Your task to perform on an android device: toggle translation in the chrome app Image 0: 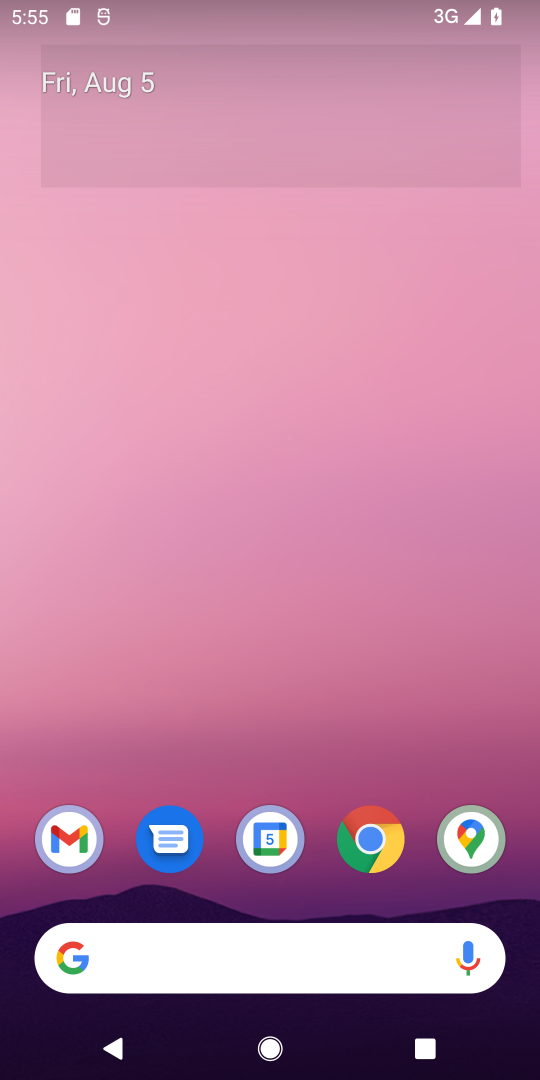
Step 0: click (365, 853)
Your task to perform on an android device: toggle translation in the chrome app Image 1: 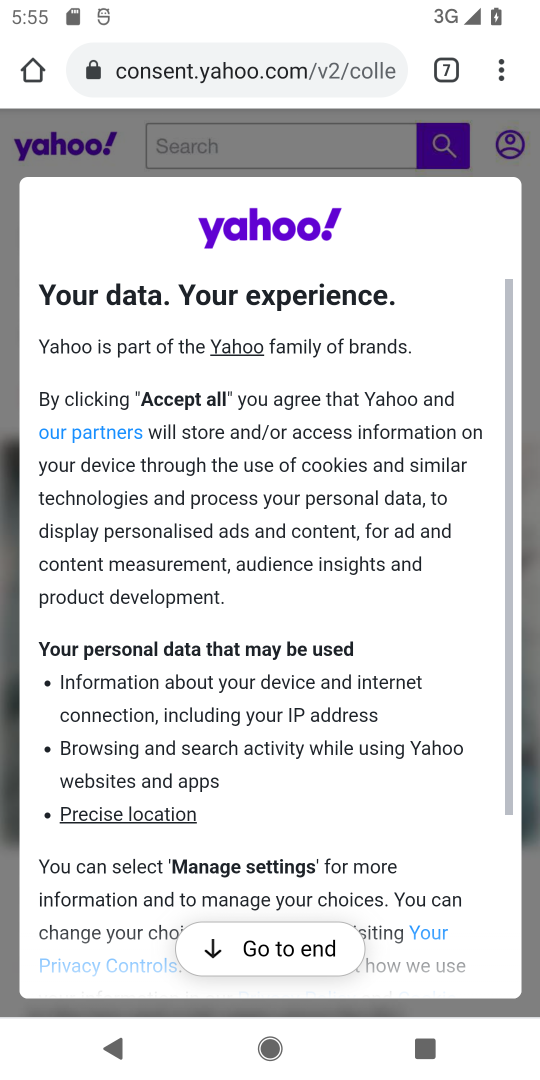
Step 1: drag from (502, 80) to (300, 830)
Your task to perform on an android device: toggle translation in the chrome app Image 2: 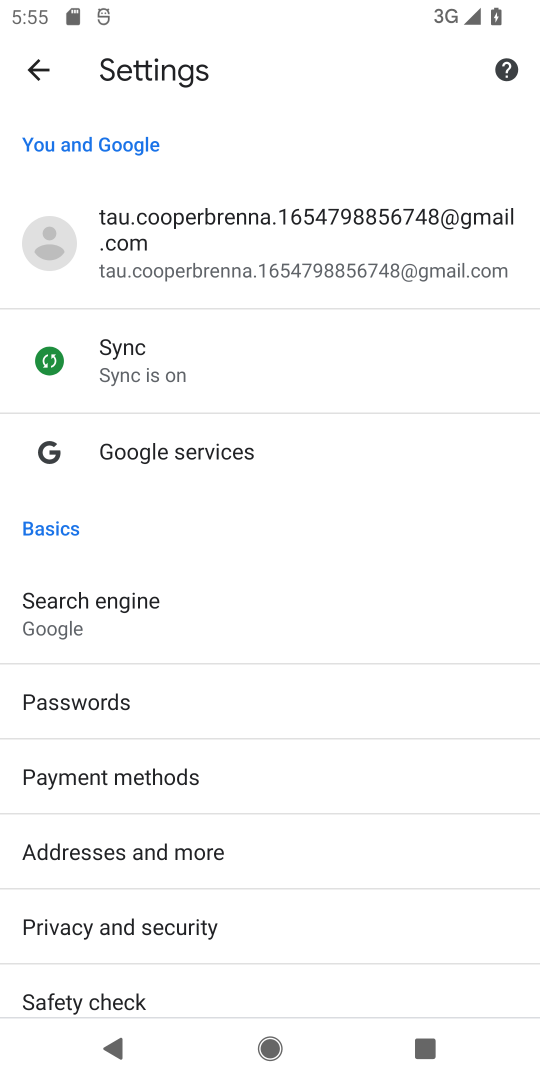
Step 2: drag from (260, 882) to (301, 316)
Your task to perform on an android device: toggle translation in the chrome app Image 3: 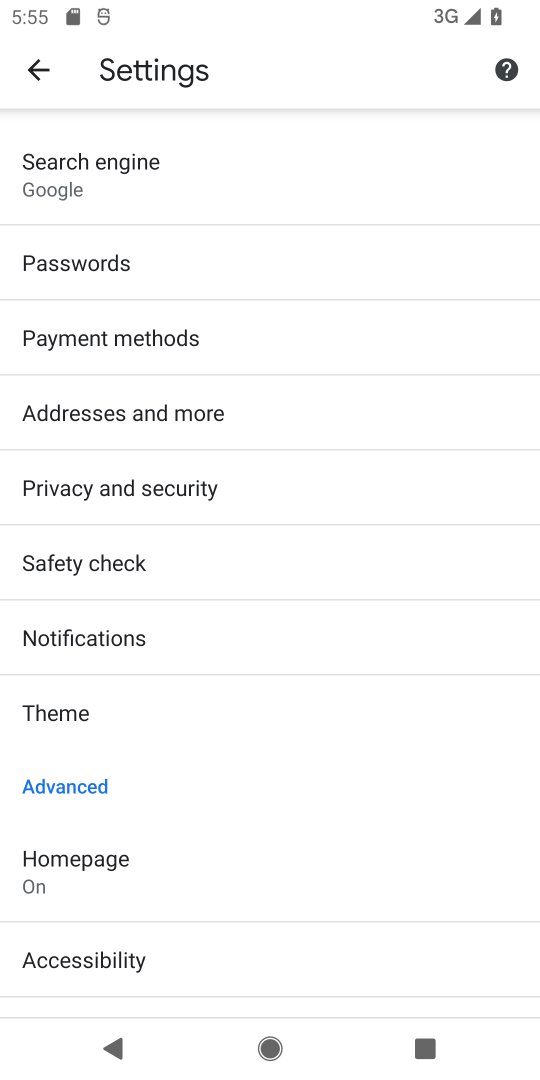
Step 3: drag from (191, 926) to (220, 482)
Your task to perform on an android device: toggle translation in the chrome app Image 4: 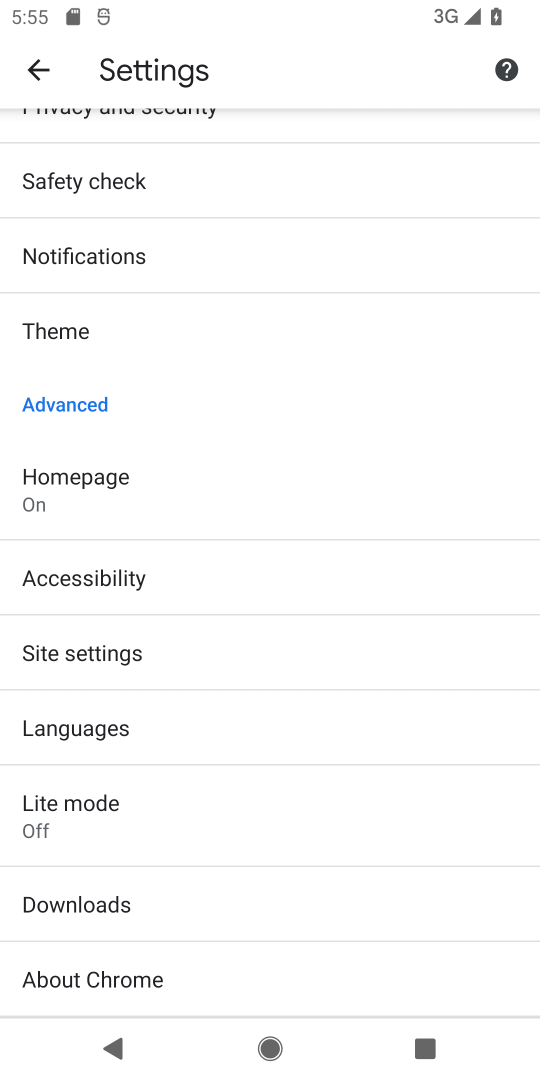
Step 4: click (142, 708)
Your task to perform on an android device: toggle translation in the chrome app Image 5: 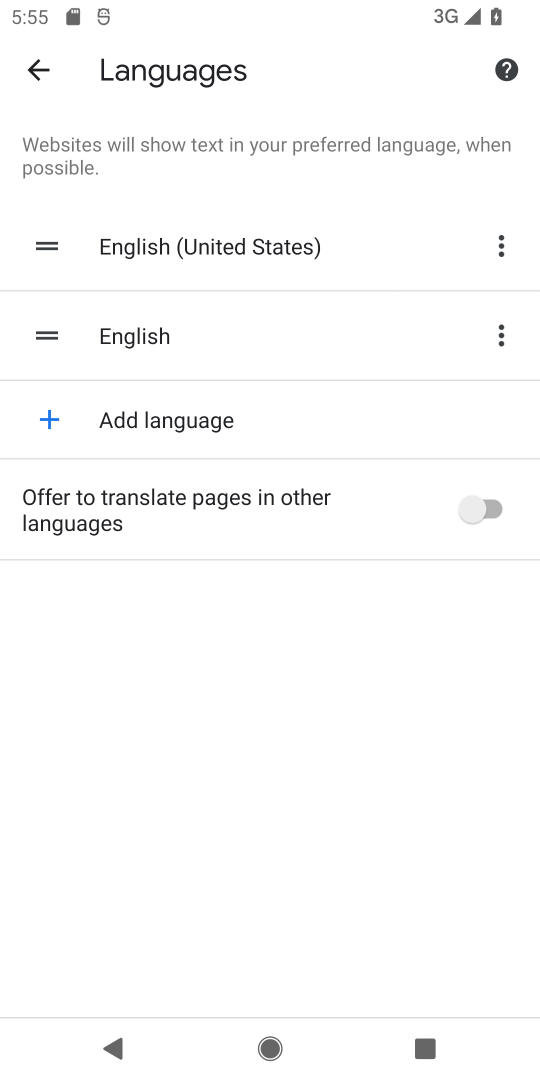
Step 5: click (481, 510)
Your task to perform on an android device: toggle translation in the chrome app Image 6: 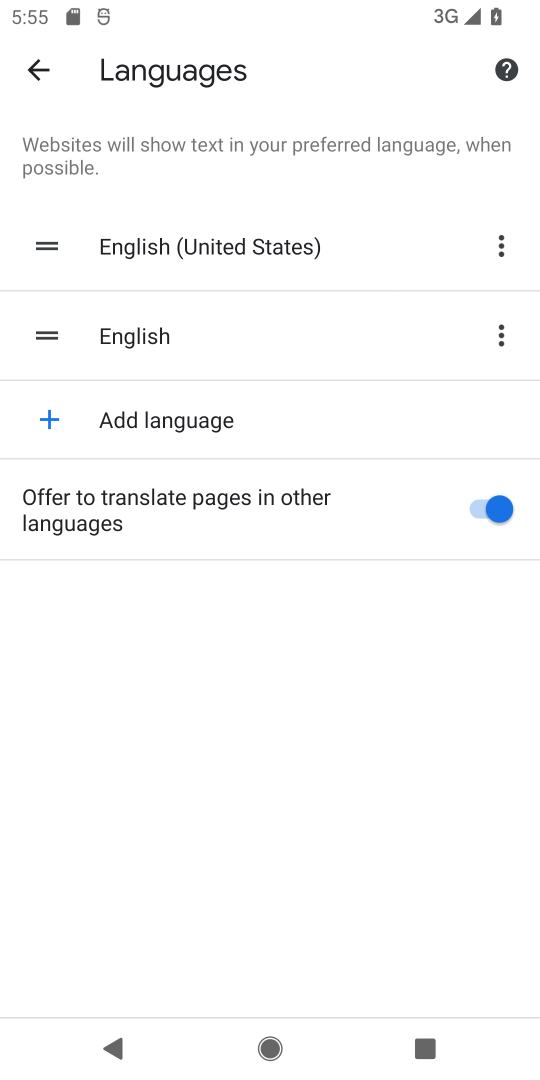
Step 6: task complete